Your task to perform on an android device: turn off data saver in the chrome app Image 0: 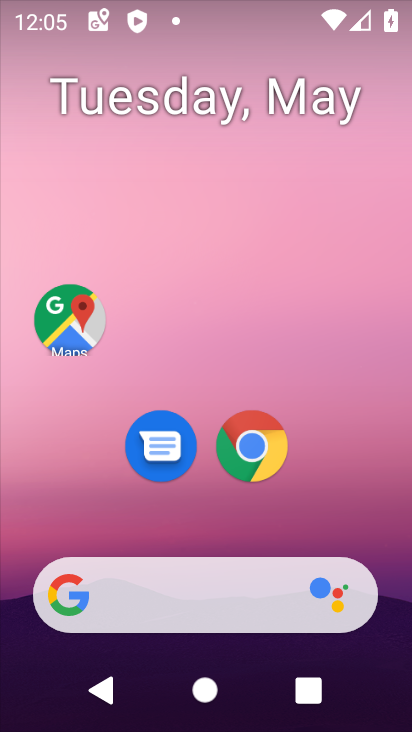
Step 0: drag from (342, 486) to (314, 0)
Your task to perform on an android device: turn off data saver in the chrome app Image 1: 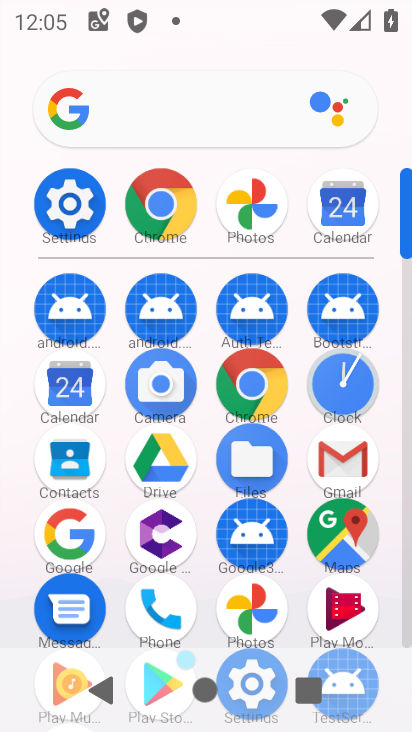
Step 1: click (173, 211)
Your task to perform on an android device: turn off data saver in the chrome app Image 2: 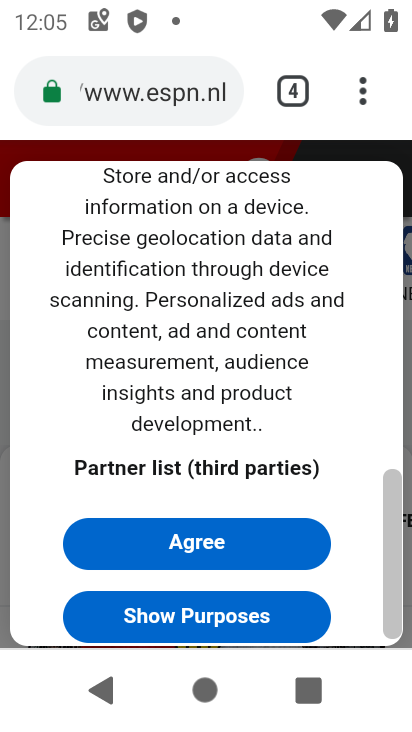
Step 2: drag from (362, 89) to (135, 490)
Your task to perform on an android device: turn off data saver in the chrome app Image 3: 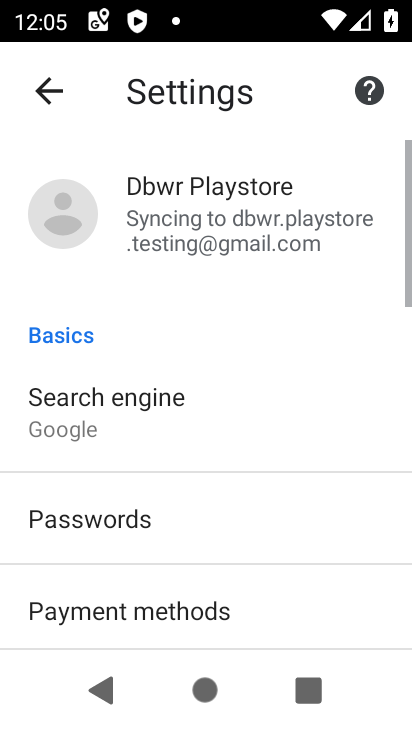
Step 3: drag from (345, 258) to (346, 141)
Your task to perform on an android device: turn off data saver in the chrome app Image 4: 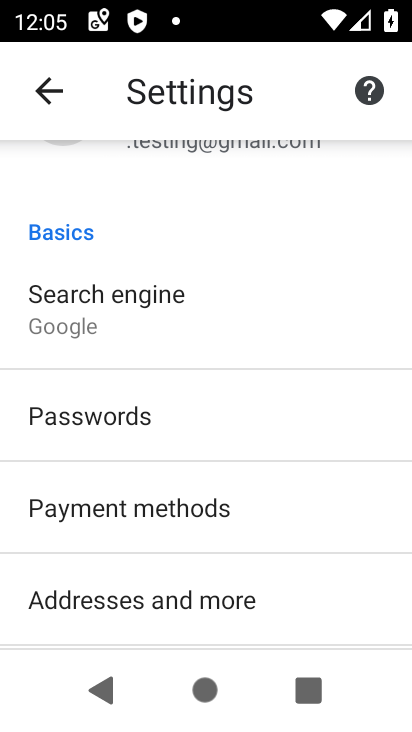
Step 4: drag from (246, 519) to (278, 164)
Your task to perform on an android device: turn off data saver in the chrome app Image 5: 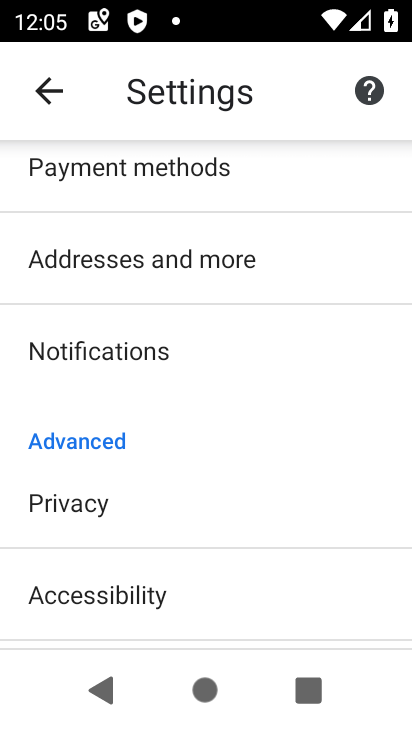
Step 5: drag from (210, 582) to (252, 193)
Your task to perform on an android device: turn off data saver in the chrome app Image 6: 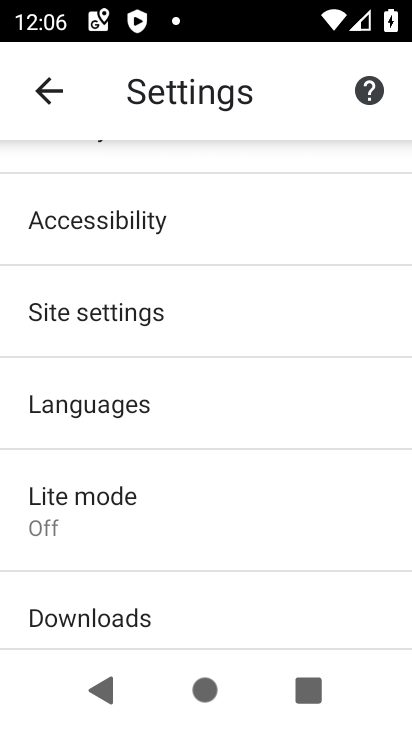
Step 6: click (110, 519)
Your task to perform on an android device: turn off data saver in the chrome app Image 7: 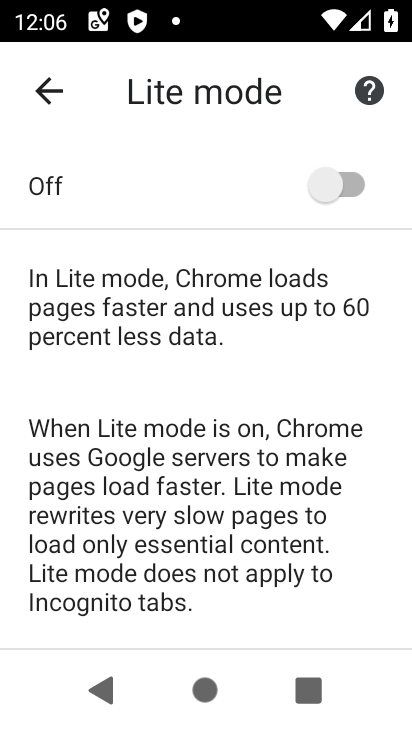
Step 7: task complete